Your task to perform on an android device: Open Google Image 0: 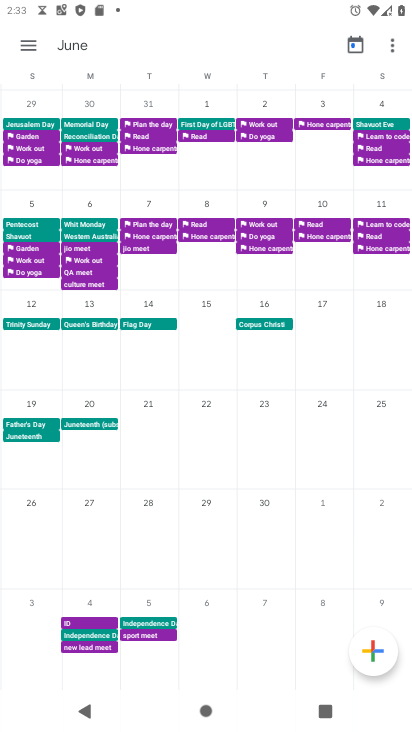
Step 0: drag from (216, 586) to (249, 296)
Your task to perform on an android device: Open Google Image 1: 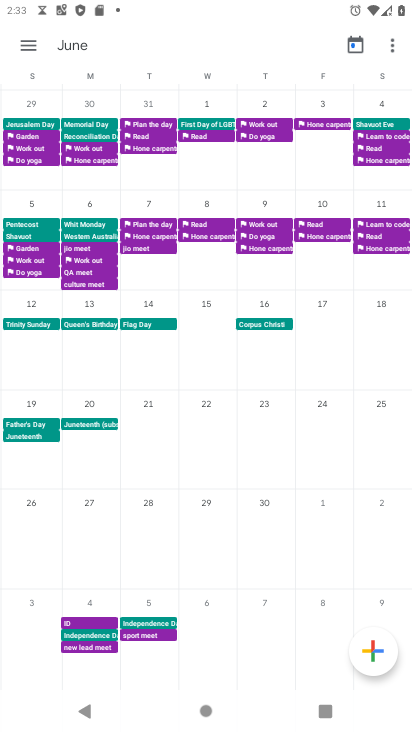
Step 1: press home button
Your task to perform on an android device: Open Google Image 2: 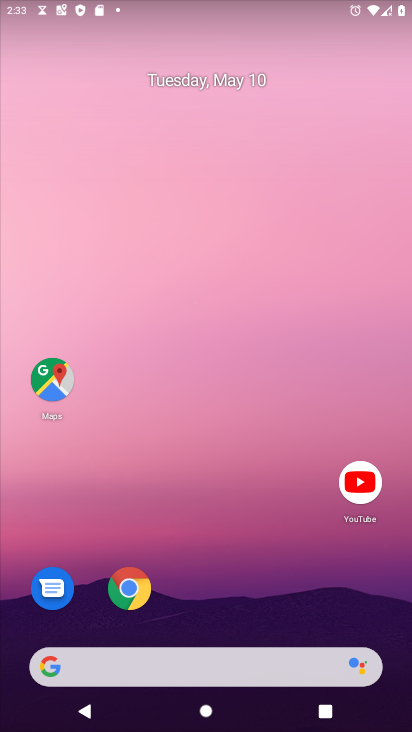
Step 2: drag from (228, 613) to (271, 328)
Your task to perform on an android device: Open Google Image 3: 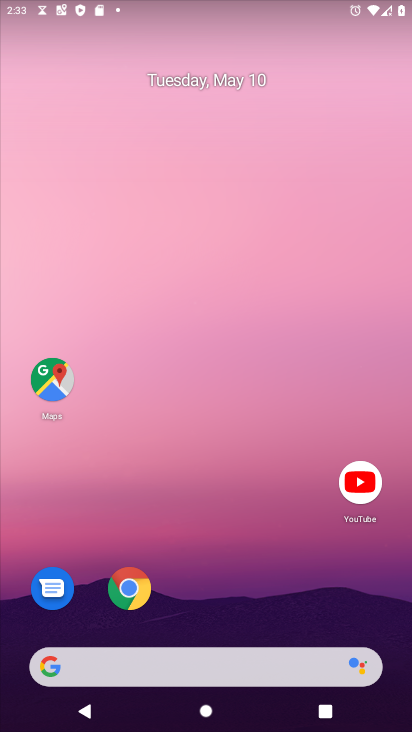
Step 3: drag from (175, 557) to (217, 219)
Your task to perform on an android device: Open Google Image 4: 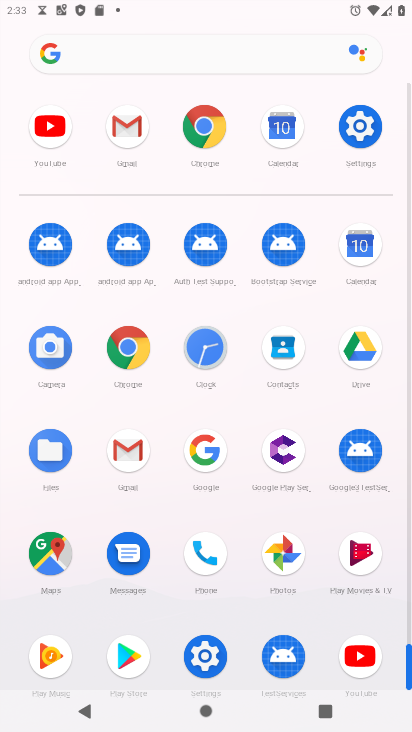
Step 4: click (187, 457)
Your task to perform on an android device: Open Google Image 5: 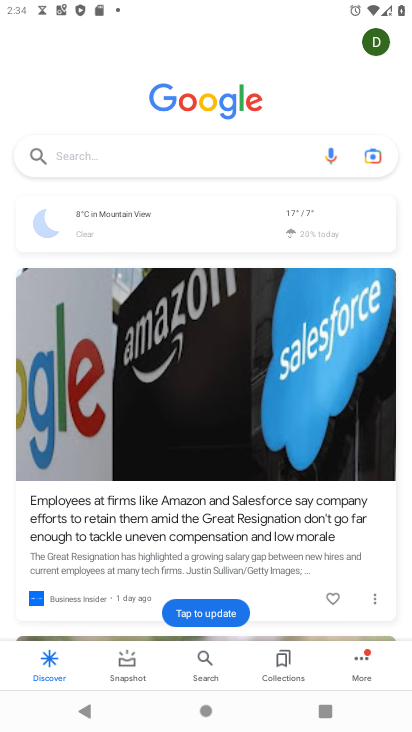
Step 5: task complete